Your task to perform on an android device: Open ESPN.com Image 0: 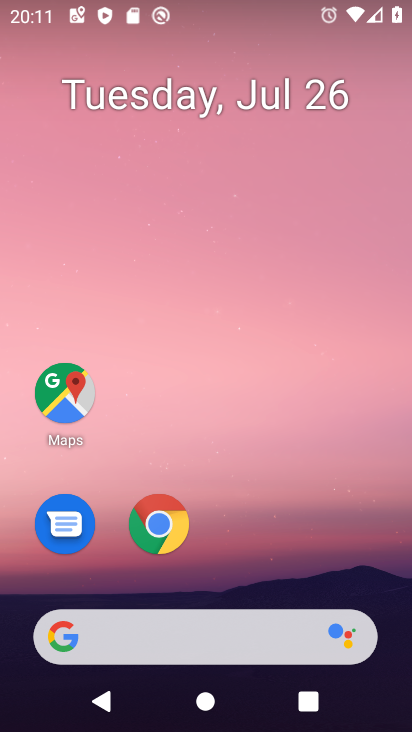
Step 0: click (223, 640)
Your task to perform on an android device: Open ESPN.com Image 1: 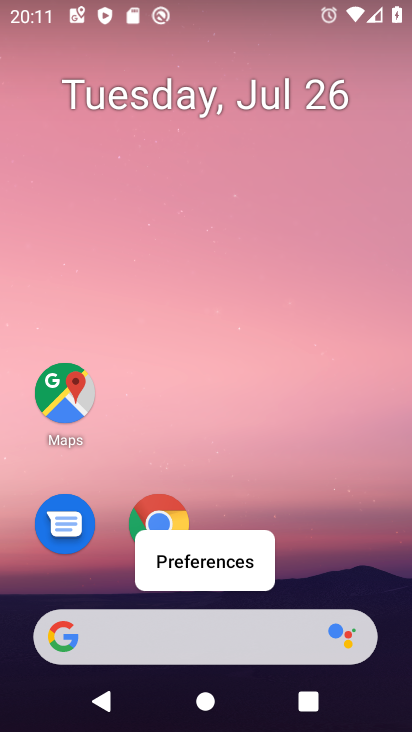
Step 1: click (210, 638)
Your task to perform on an android device: Open ESPN.com Image 2: 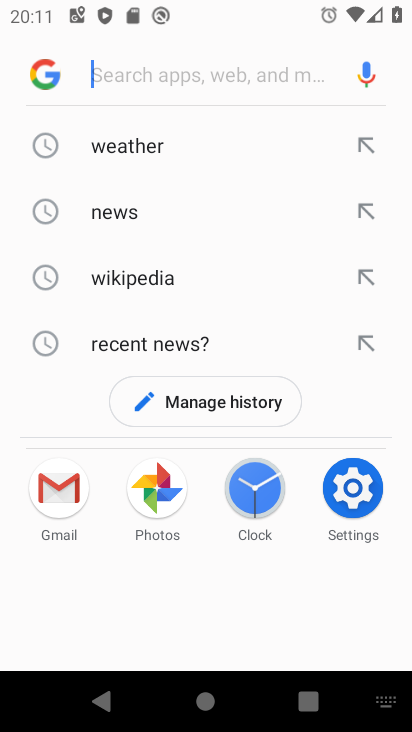
Step 2: type "espn.com"
Your task to perform on an android device: Open ESPN.com Image 3: 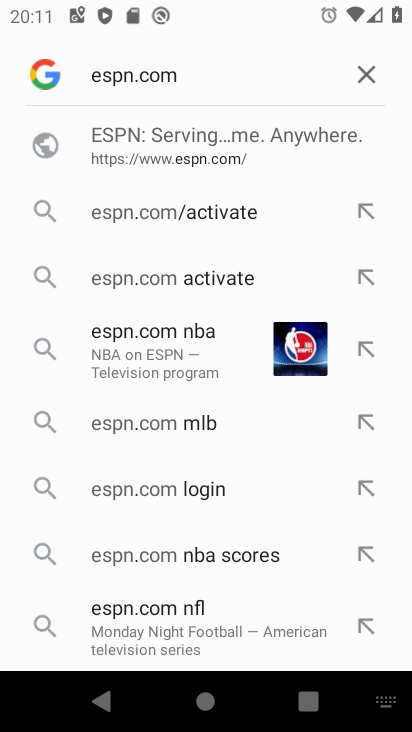
Step 3: click (234, 143)
Your task to perform on an android device: Open ESPN.com Image 4: 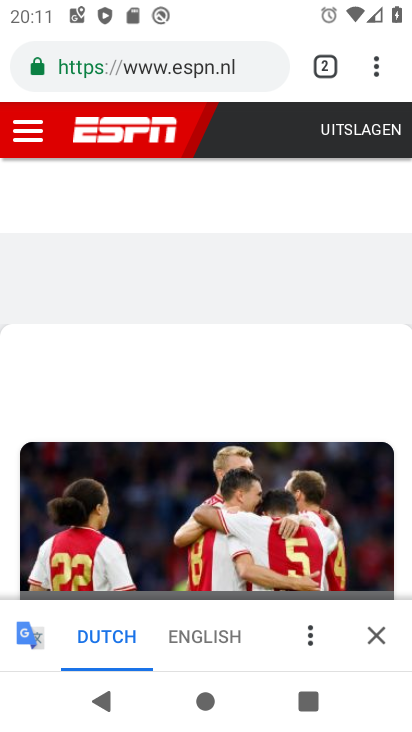
Step 4: task complete